Your task to perform on an android device: refresh tabs in the chrome app Image 0: 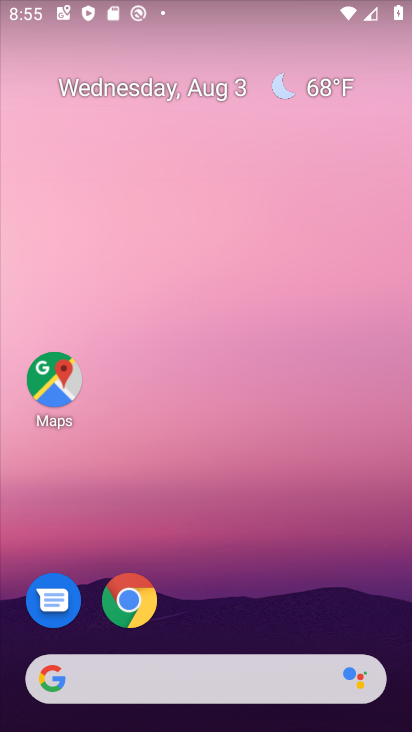
Step 0: click (119, 585)
Your task to perform on an android device: refresh tabs in the chrome app Image 1: 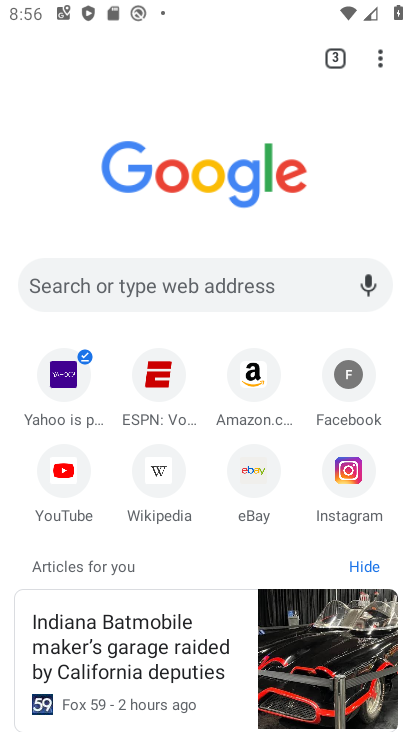
Step 1: click (381, 59)
Your task to perform on an android device: refresh tabs in the chrome app Image 2: 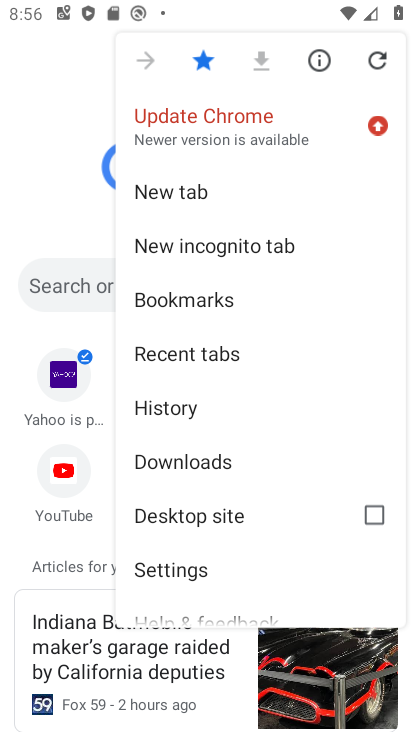
Step 2: click (381, 54)
Your task to perform on an android device: refresh tabs in the chrome app Image 3: 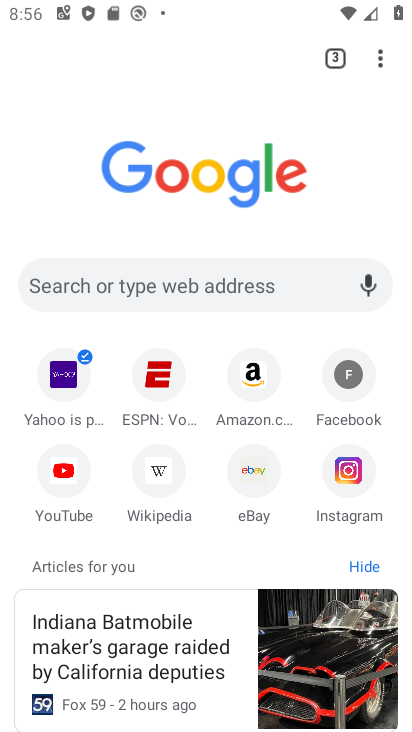
Step 3: task complete